Your task to perform on an android device: Do I have any events tomorrow? Image 0: 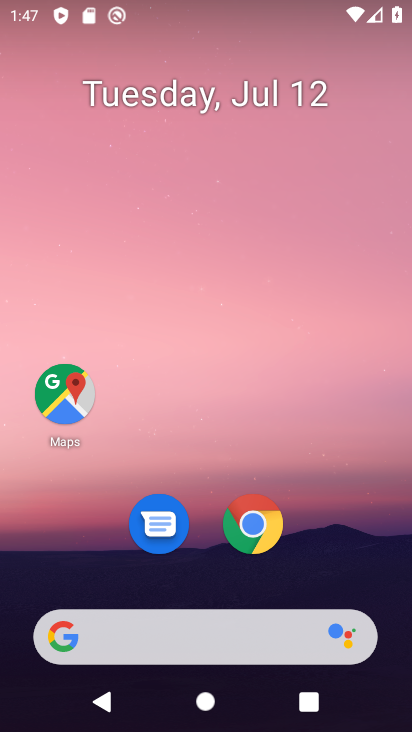
Step 0: drag from (351, 514) to (329, 48)
Your task to perform on an android device: Do I have any events tomorrow? Image 1: 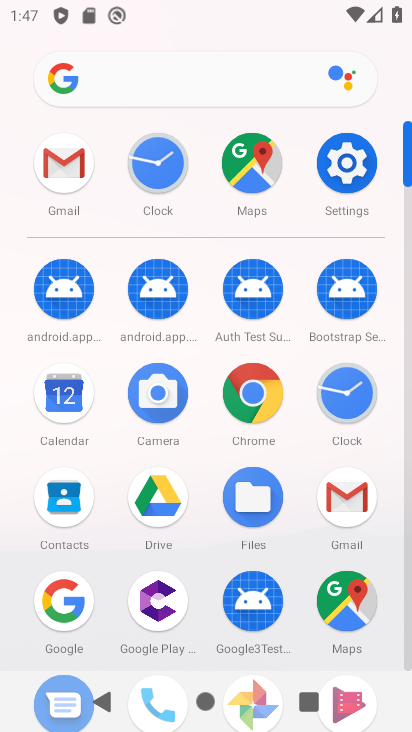
Step 1: click (73, 393)
Your task to perform on an android device: Do I have any events tomorrow? Image 2: 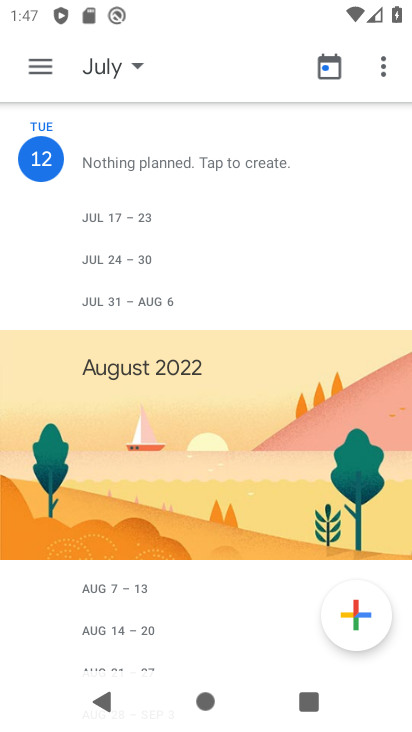
Step 2: click (38, 60)
Your task to perform on an android device: Do I have any events tomorrow? Image 3: 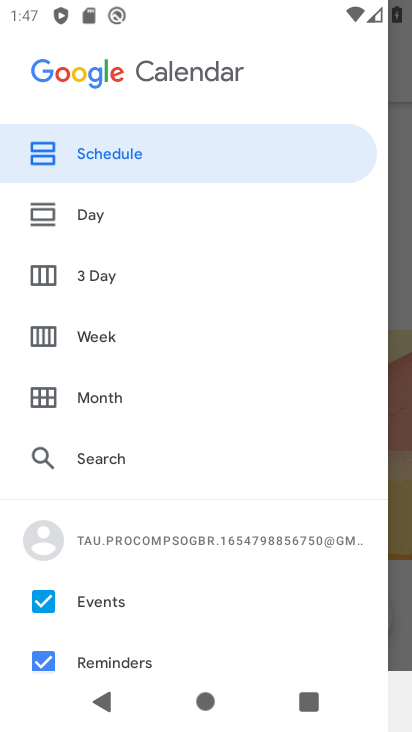
Step 3: click (65, 277)
Your task to perform on an android device: Do I have any events tomorrow? Image 4: 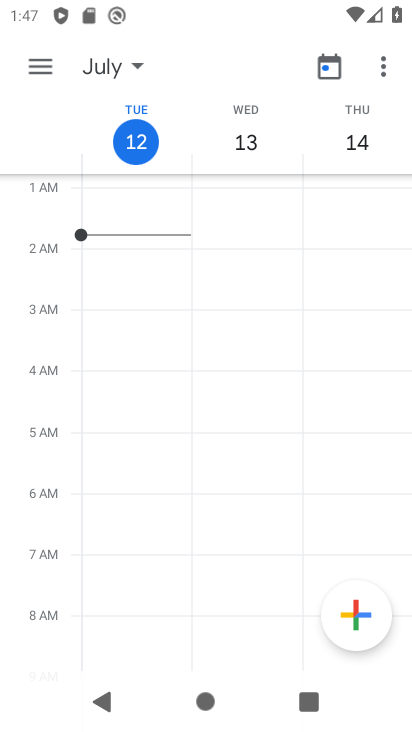
Step 4: task complete